Your task to perform on an android device: Search for usb-a to usb-b on bestbuy.com, select the first entry, and add it to the cart. Image 0: 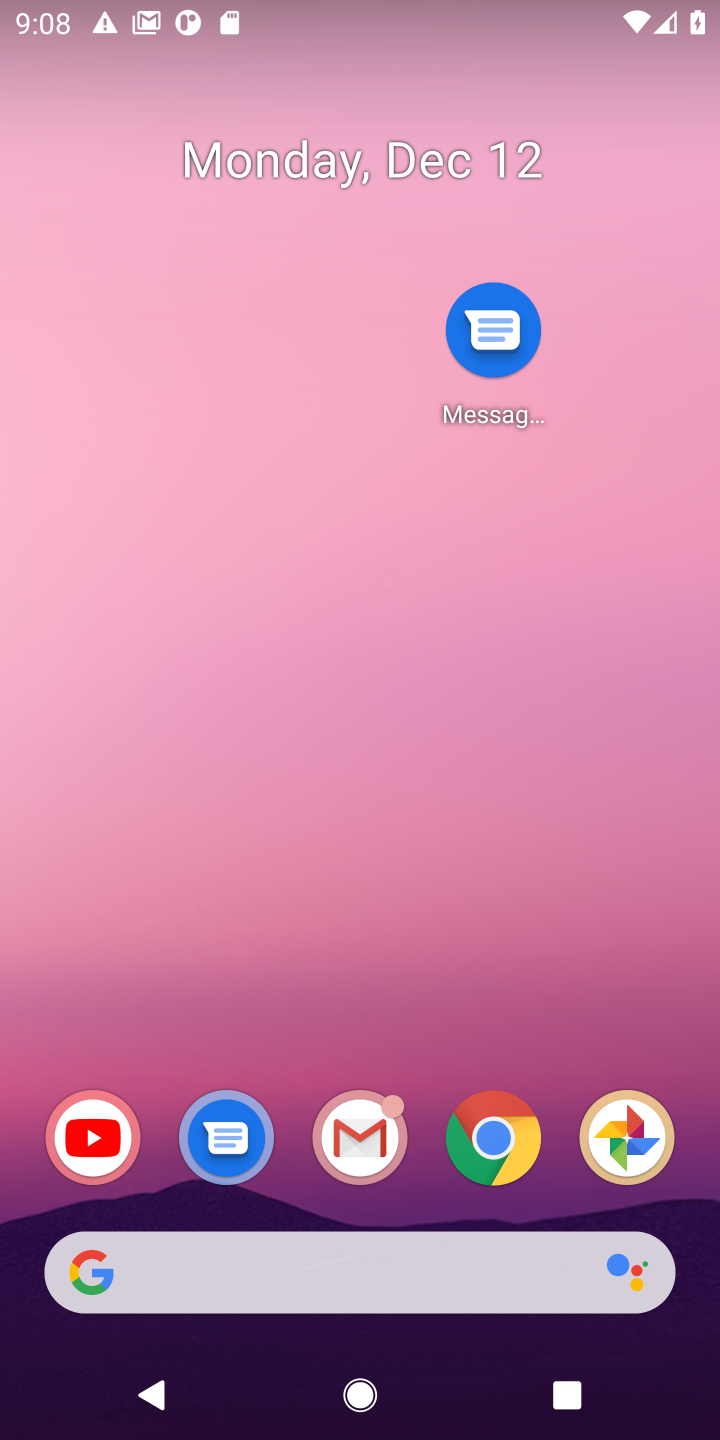
Step 0: drag from (442, 1072) to (422, 446)
Your task to perform on an android device: Search for usb-a to usb-b on bestbuy.com, select the first entry, and add it to the cart. Image 1: 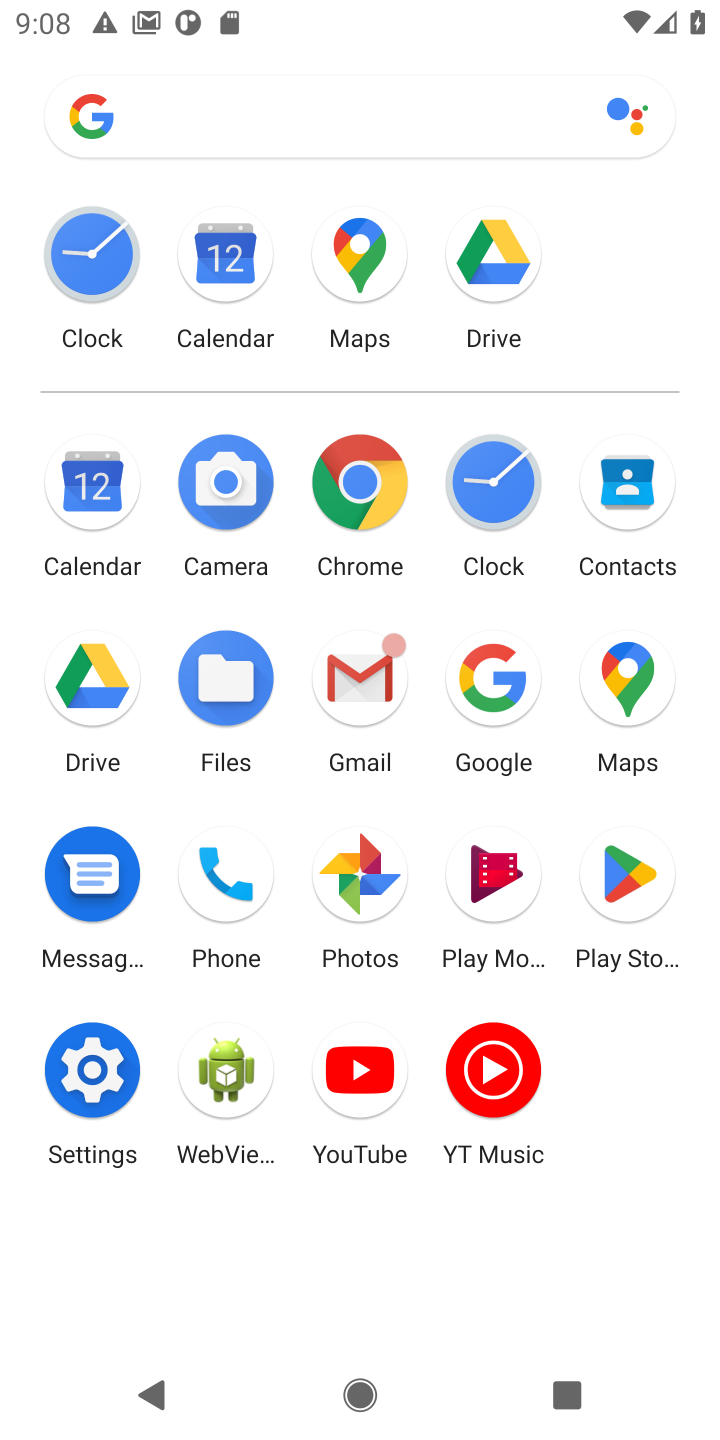
Step 1: click (480, 679)
Your task to perform on an android device: Search for usb-a to usb-b on bestbuy.com, select the first entry, and add it to the cart. Image 2: 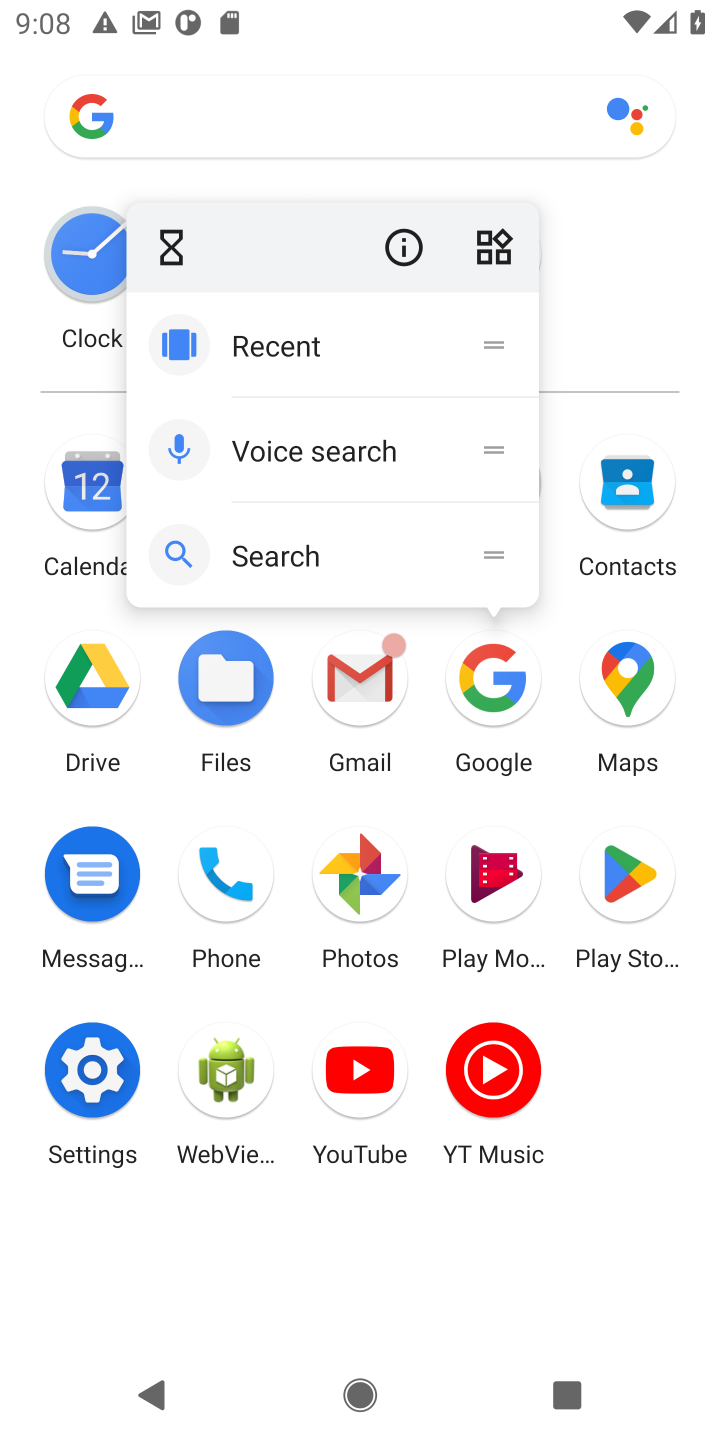
Step 2: click (493, 688)
Your task to perform on an android device: Search for usb-a to usb-b on bestbuy.com, select the first entry, and add it to the cart. Image 3: 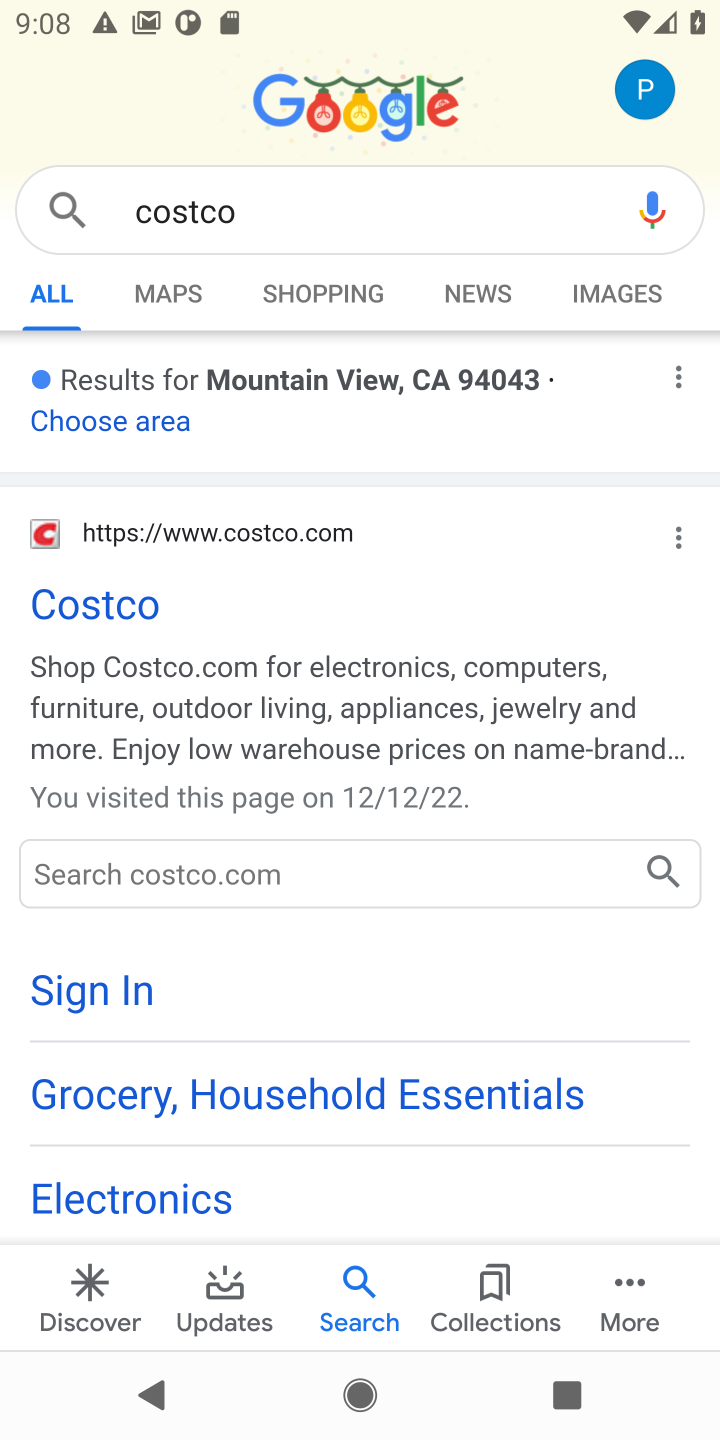
Step 3: click (171, 215)
Your task to perform on an android device: Search for usb-a to usb-b on bestbuy.com, select the first entry, and add it to the cart. Image 4: 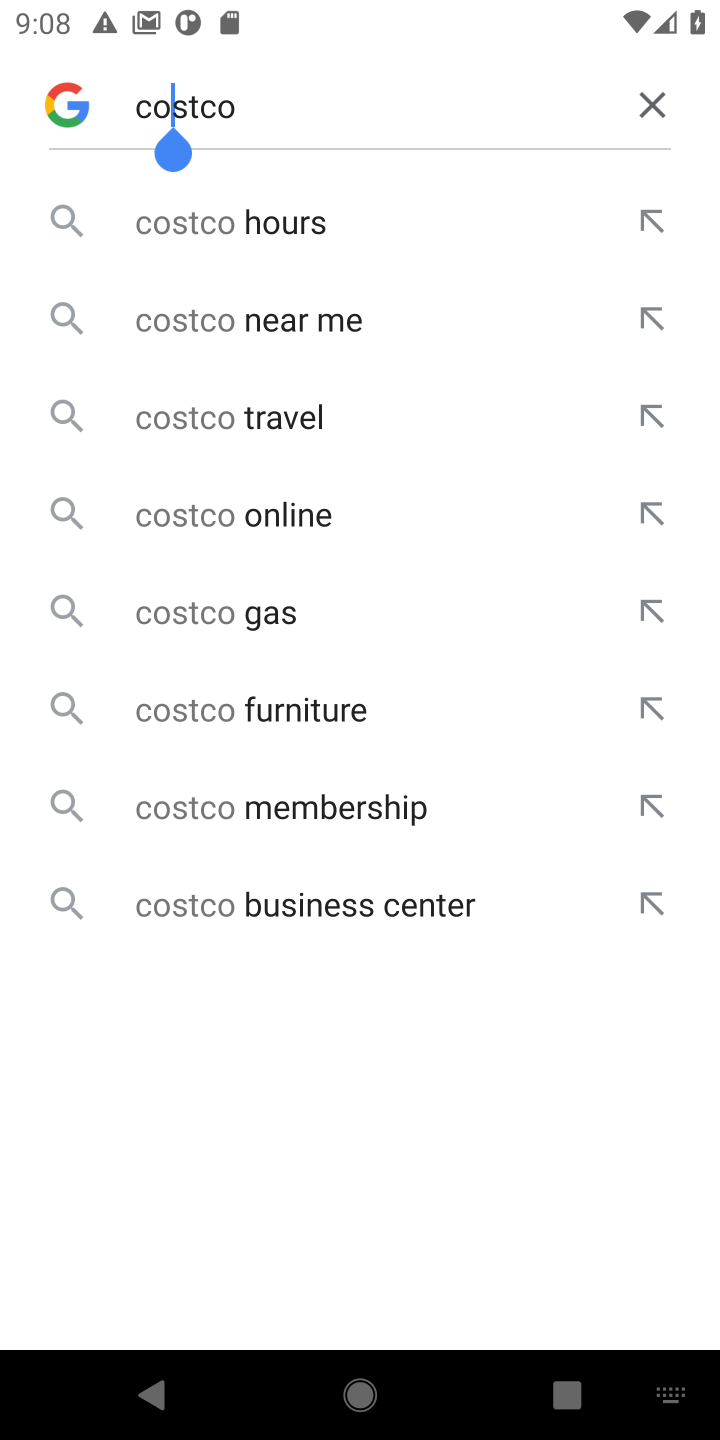
Step 4: click (639, 116)
Your task to perform on an android device: Search for usb-a to usb-b on bestbuy.com, select the first entry, and add it to the cart. Image 5: 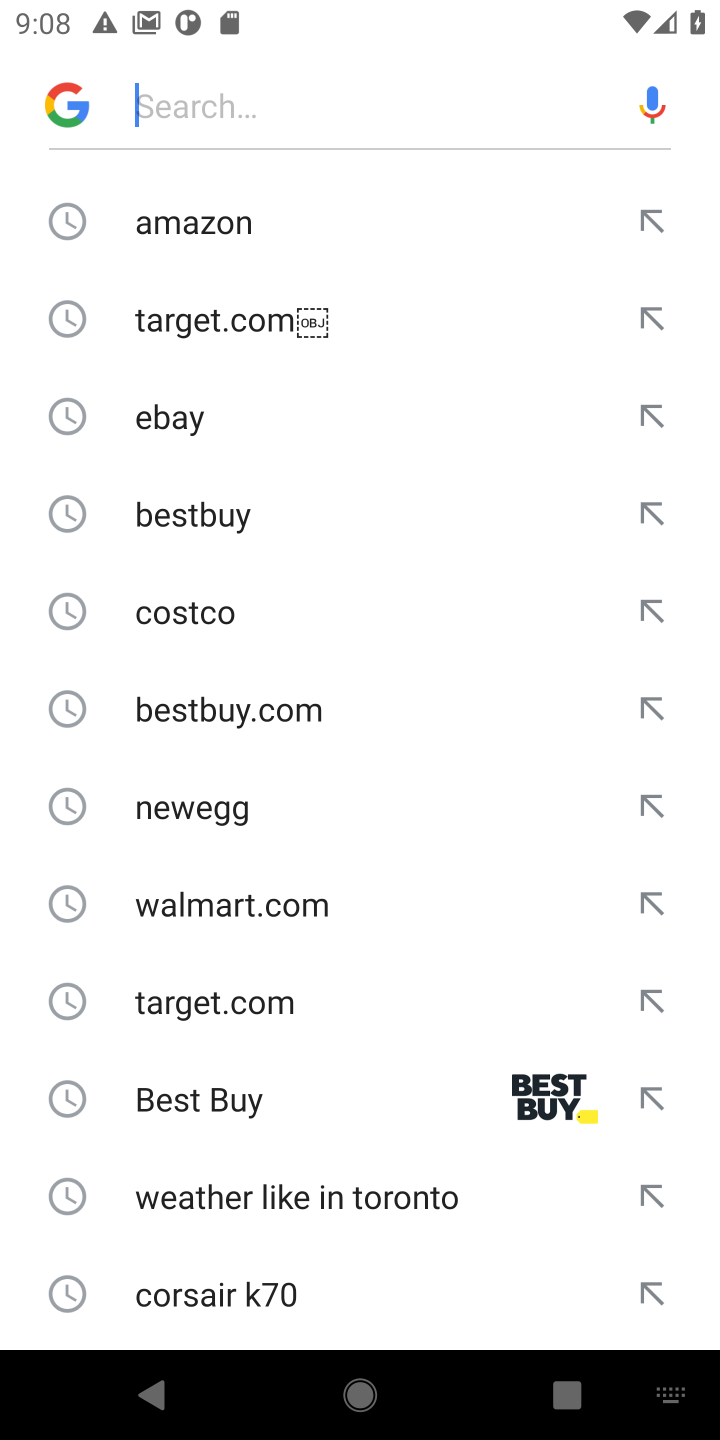
Step 5: click (218, 530)
Your task to perform on an android device: Search for usb-a to usb-b on bestbuy.com, select the first entry, and add it to the cart. Image 6: 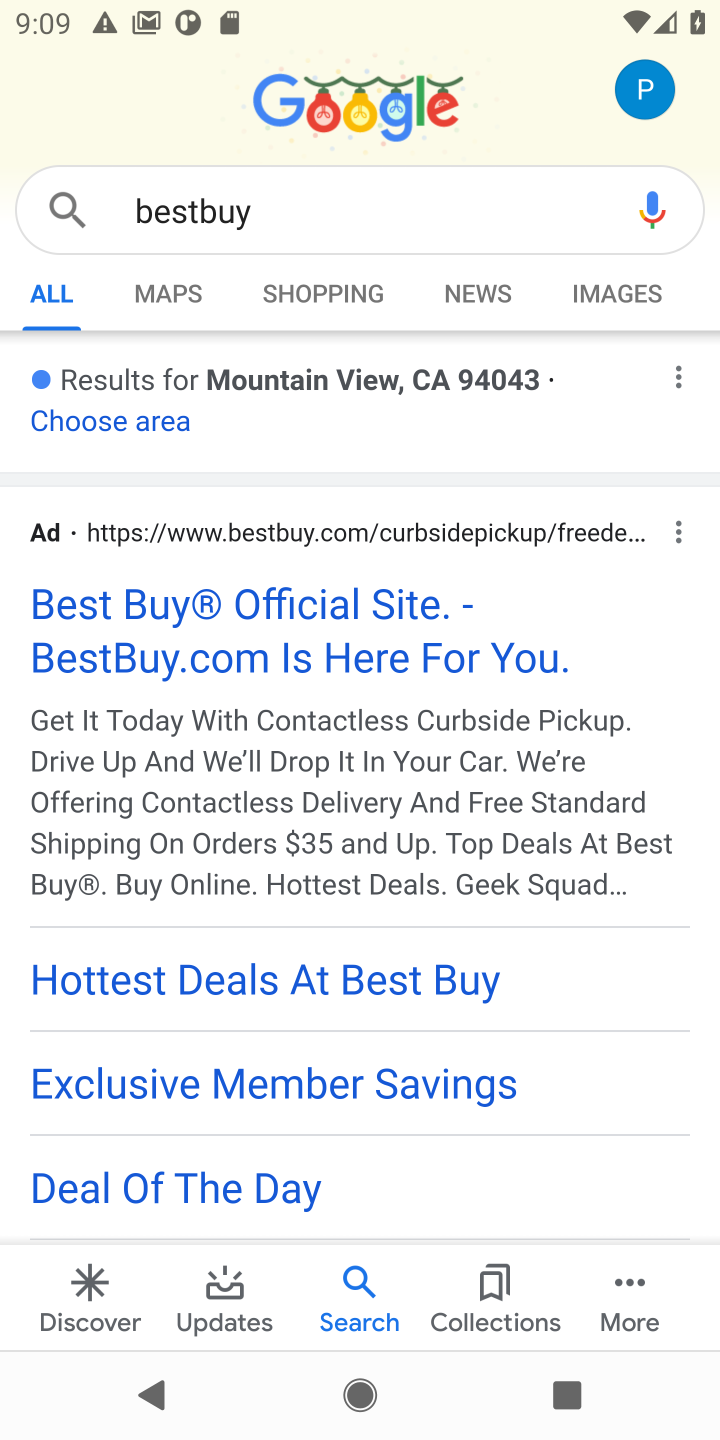
Step 6: click (231, 618)
Your task to perform on an android device: Search for usb-a to usb-b on bestbuy.com, select the first entry, and add it to the cart. Image 7: 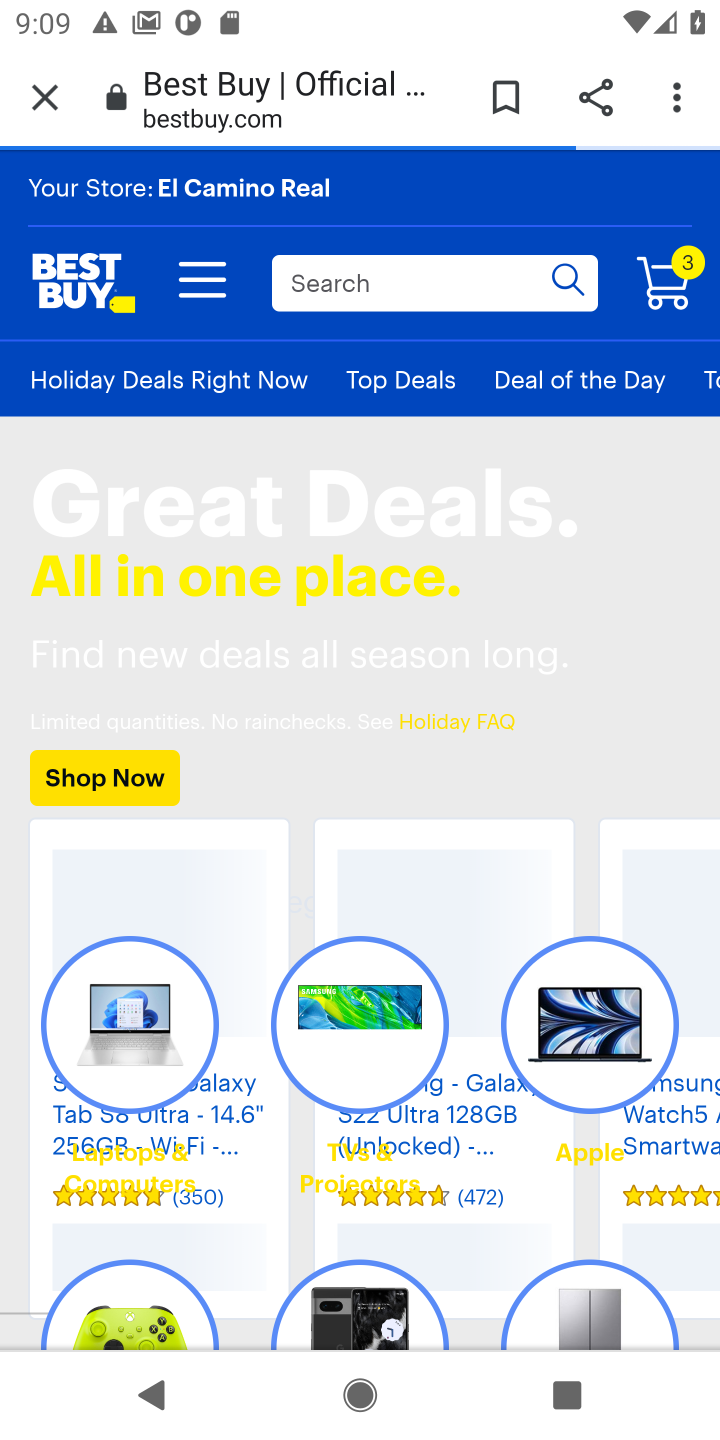
Step 7: click (338, 291)
Your task to perform on an android device: Search for usb-a to usb-b on bestbuy.com, select the first entry, and add it to the cart. Image 8: 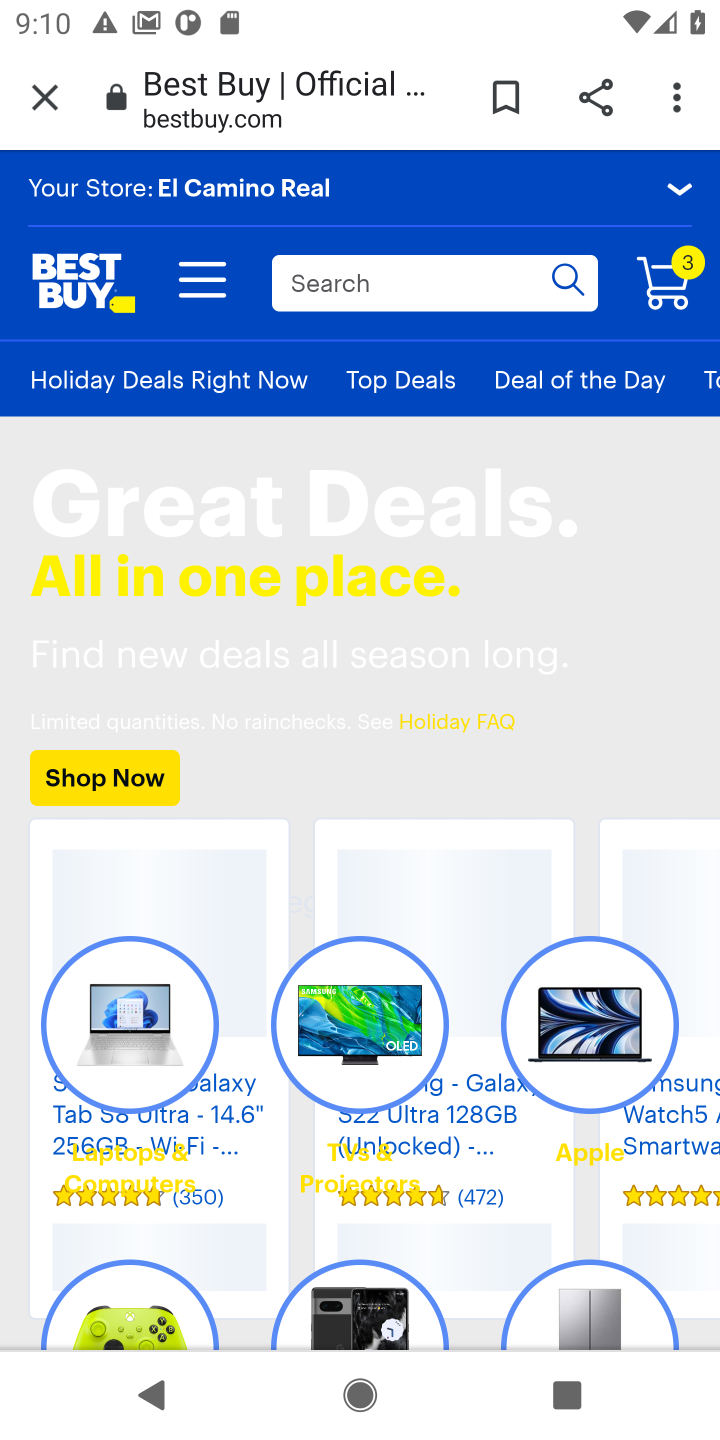
Step 8: click (302, 281)
Your task to perform on an android device: Search for usb-a to usb-b on bestbuy.com, select the first entry, and add it to the cart. Image 9: 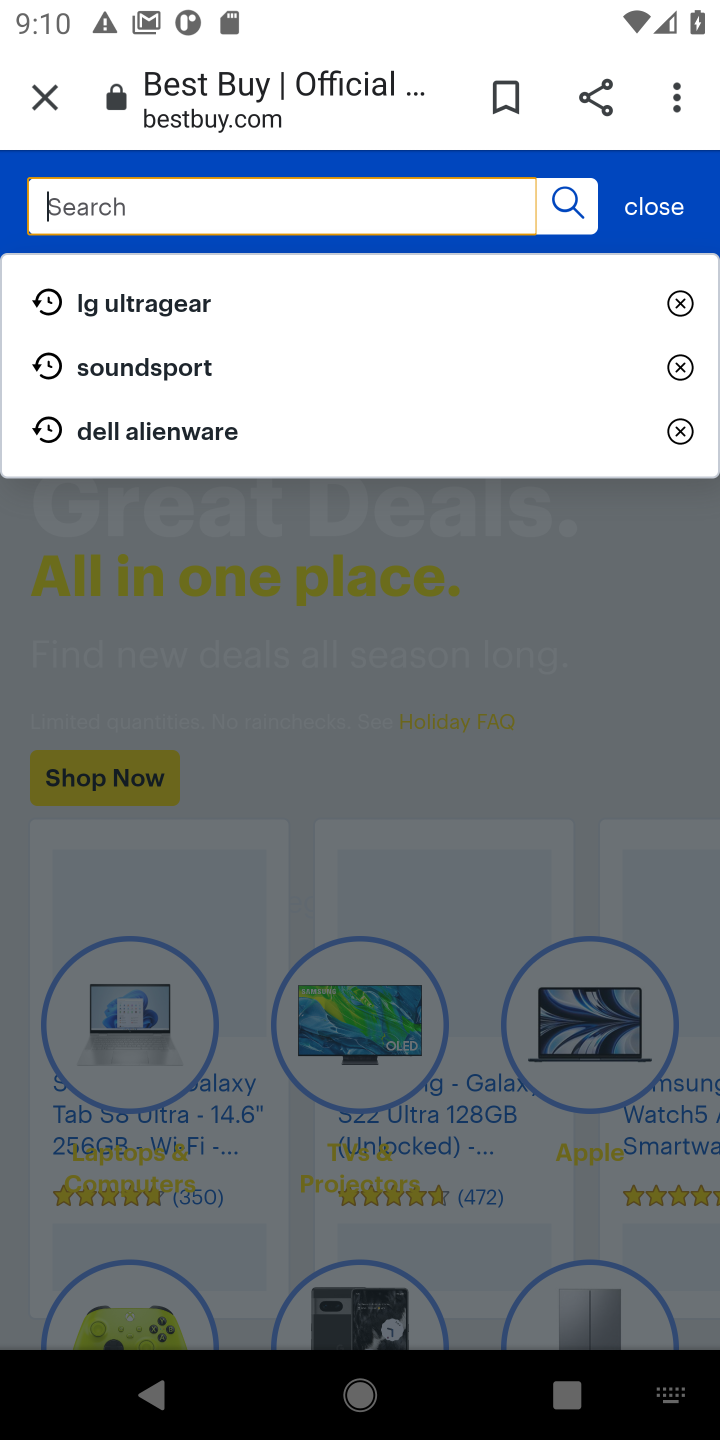
Step 9: type "usb-a to usb-b"
Your task to perform on an android device: Search for usb-a to usb-b on bestbuy.com, select the first entry, and add it to the cart. Image 10: 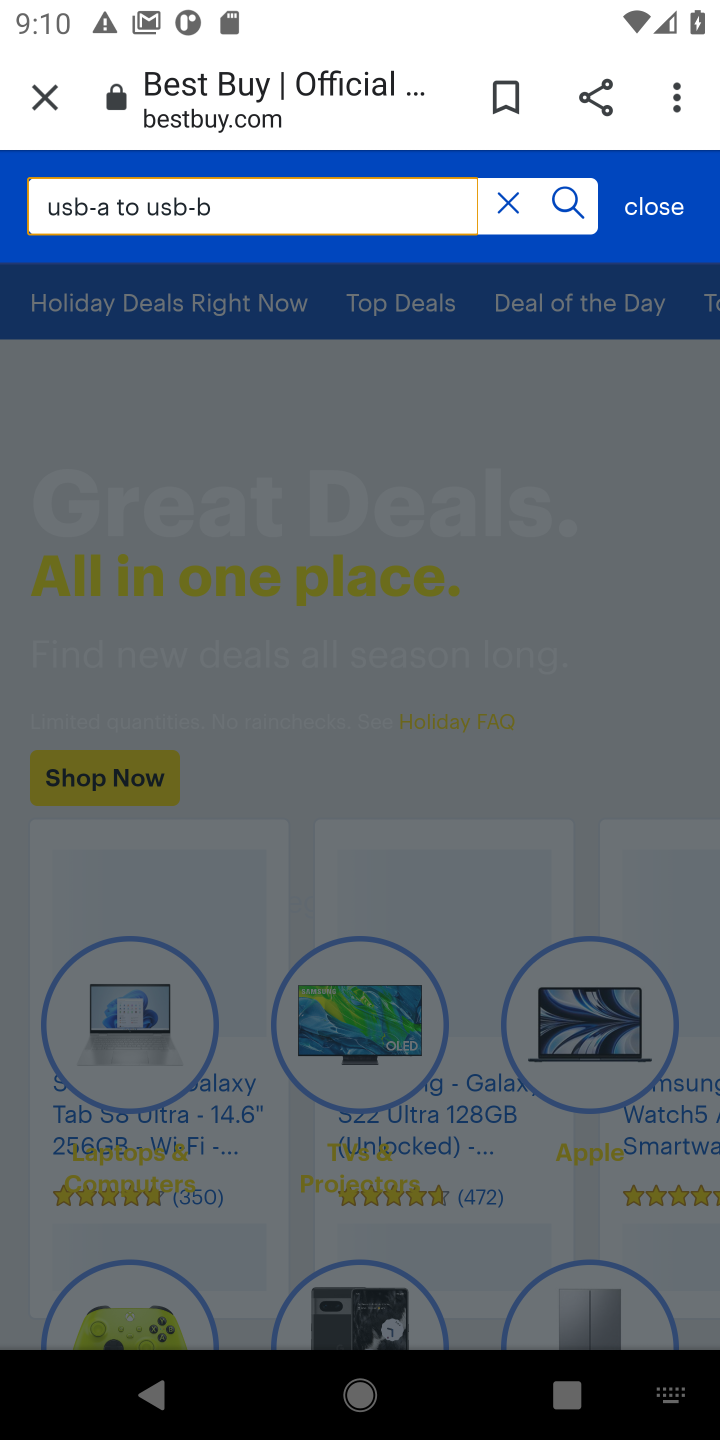
Step 10: click (572, 209)
Your task to perform on an android device: Search for usb-a to usb-b on bestbuy.com, select the first entry, and add it to the cart. Image 11: 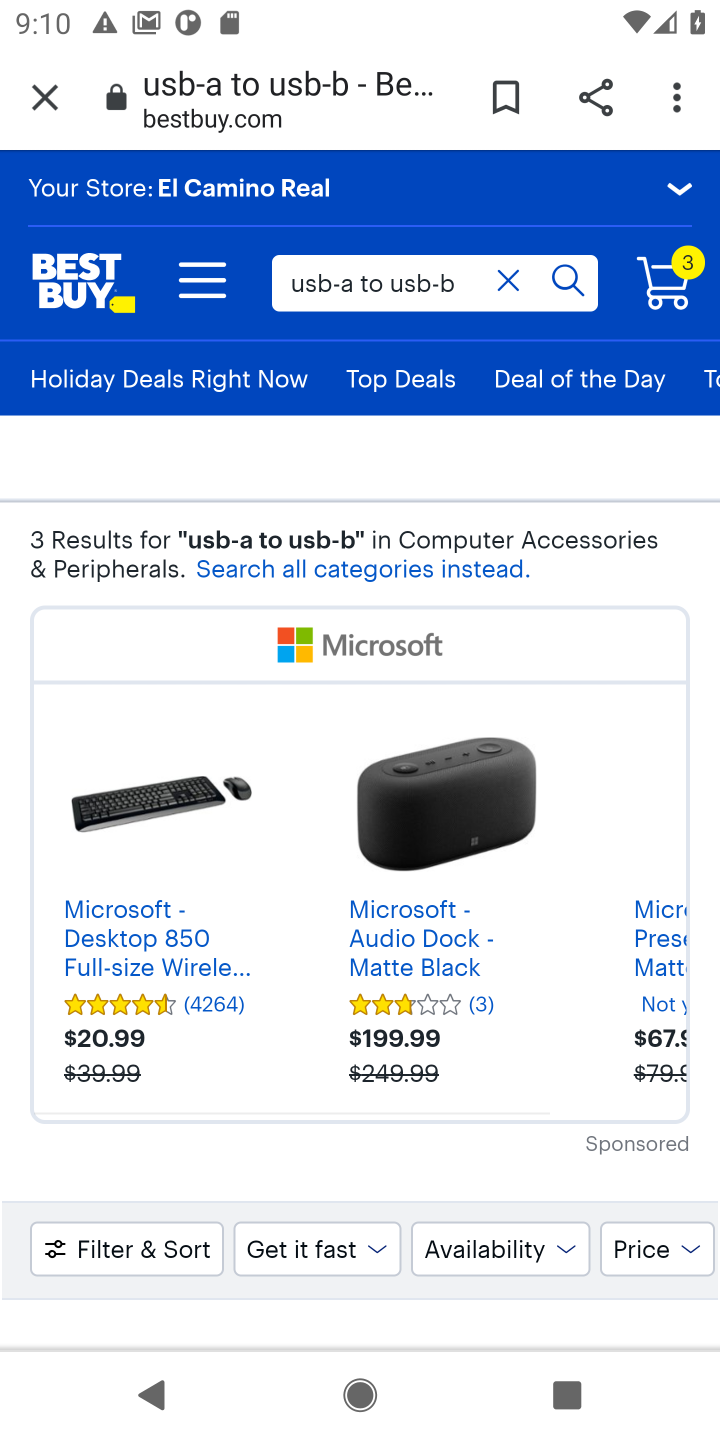
Step 11: drag from (282, 1161) to (220, 374)
Your task to perform on an android device: Search for usb-a to usb-b on bestbuy.com, select the first entry, and add it to the cart. Image 12: 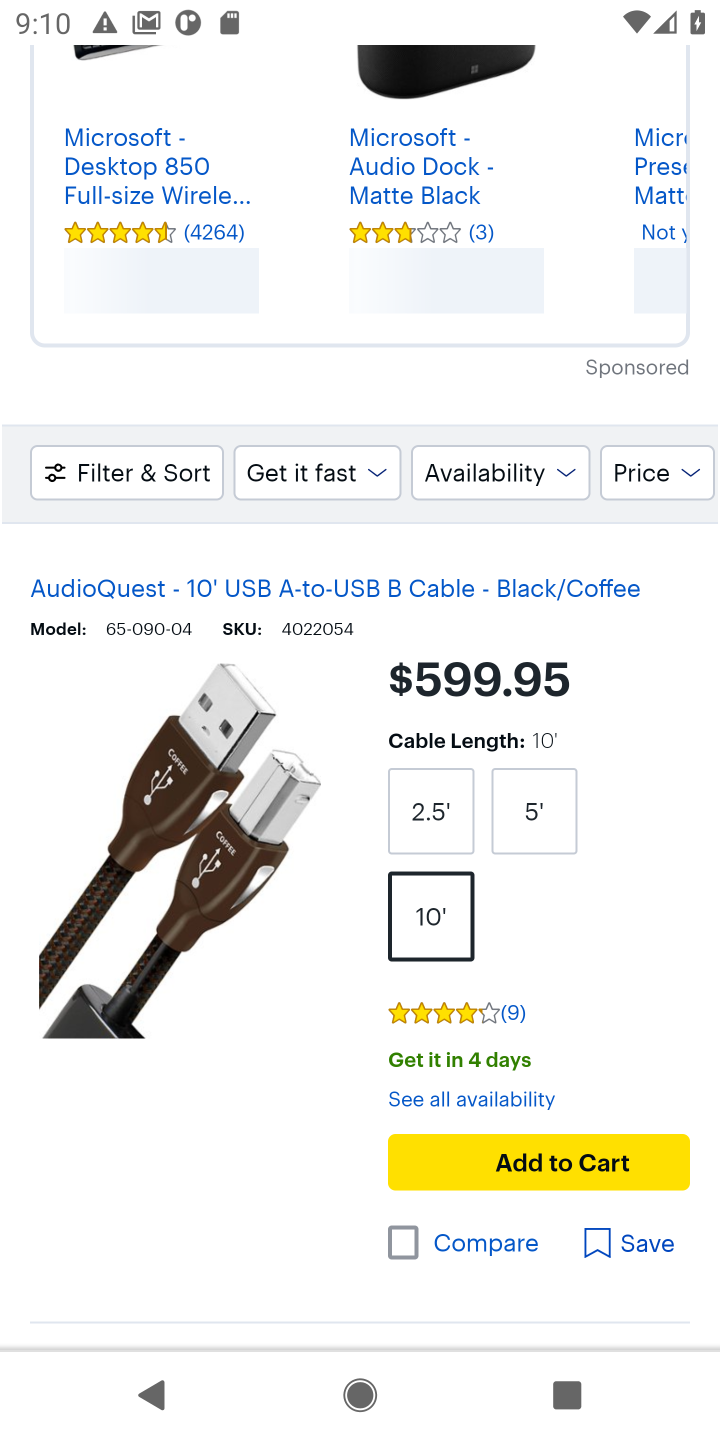
Step 12: drag from (265, 936) to (265, 465)
Your task to perform on an android device: Search for usb-a to usb-b on bestbuy.com, select the first entry, and add it to the cart. Image 13: 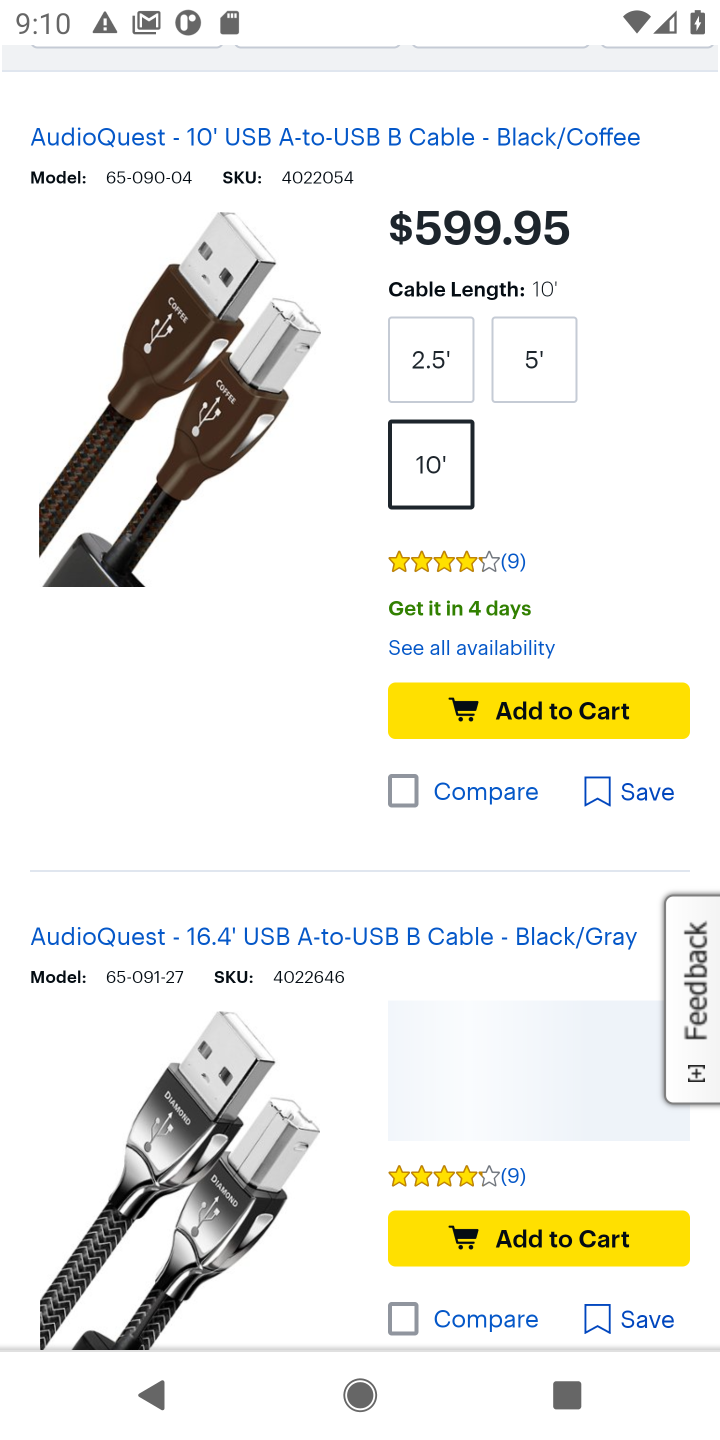
Step 13: click (520, 685)
Your task to perform on an android device: Search for usb-a to usb-b on bestbuy.com, select the first entry, and add it to the cart. Image 14: 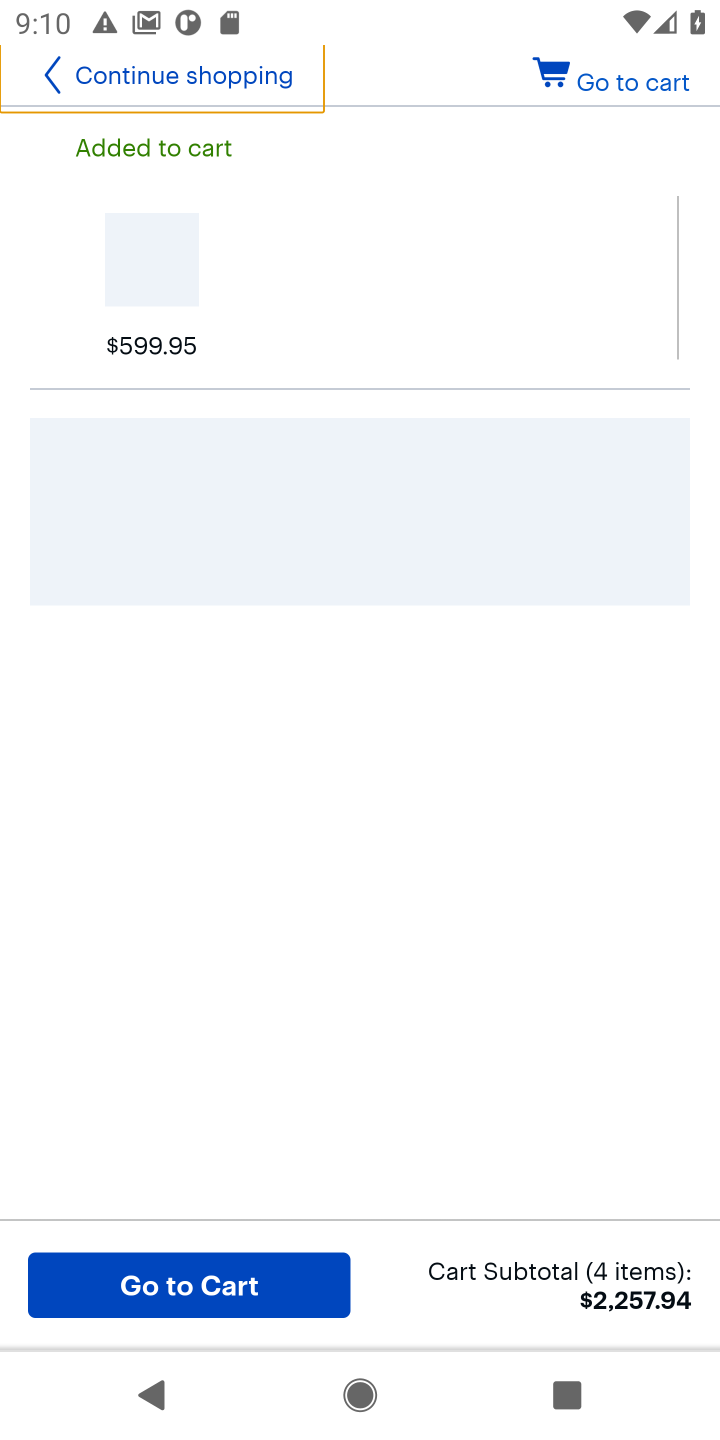
Step 14: click (246, 1282)
Your task to perform on an android device: Search for usb-a to usb-b on bestbuy.com, select the first entry, and add it to the cart. Image 15: 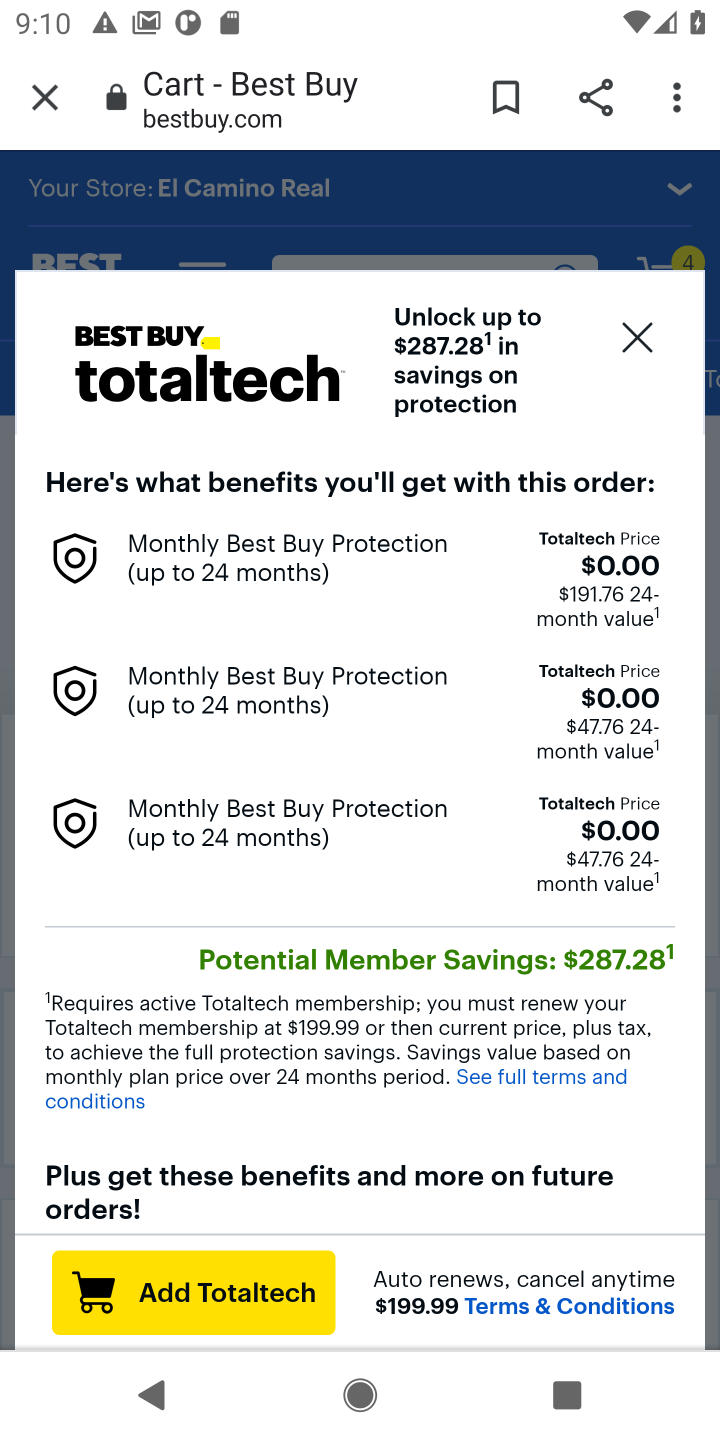
Step 15: click (632, 345)
Your task to perform on an android device: Search for usb-a to usb-b on bestbuy.com, select the first entry, and add it to the cart. Image 16: 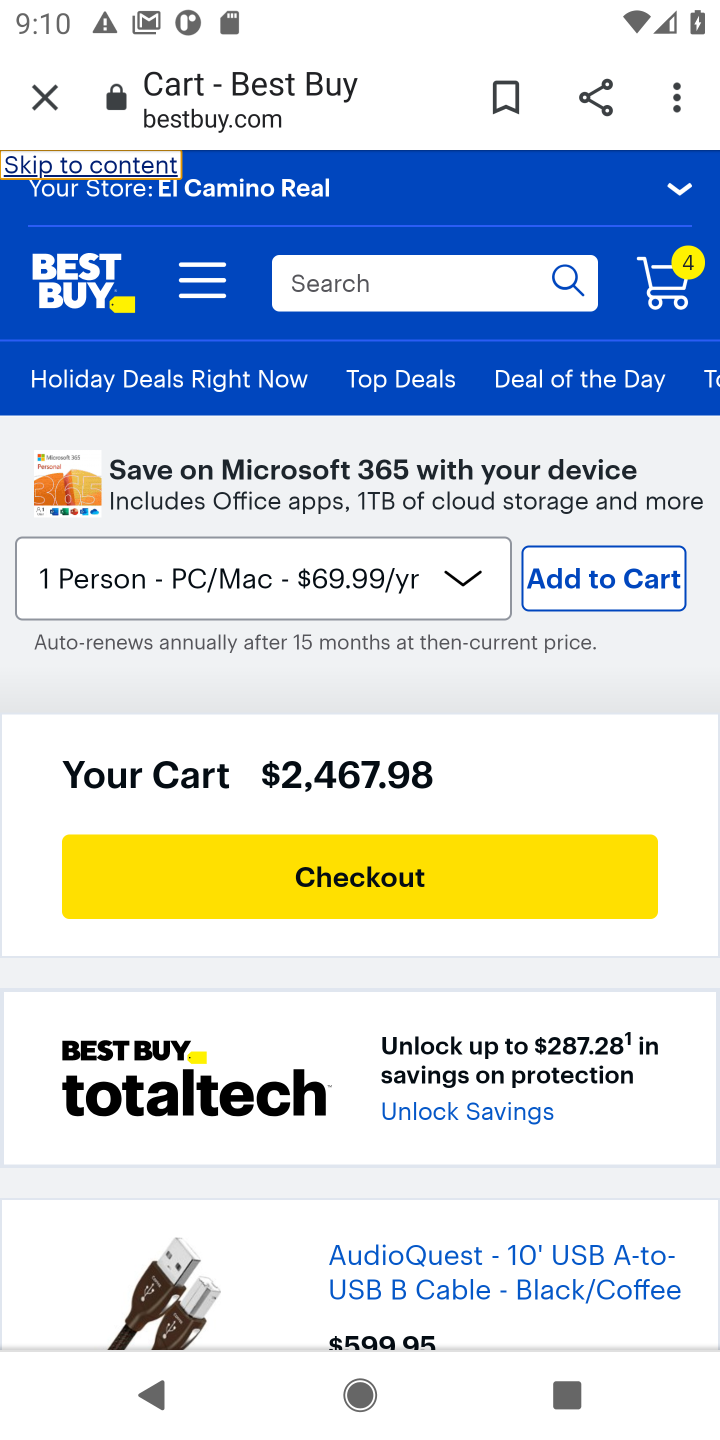
Step 16: click (345, 864)
Your task to perform on an android device: Search for usb-a to usb-b on bestbuy.com, select the first entry, and add it to the cart. Image 17: 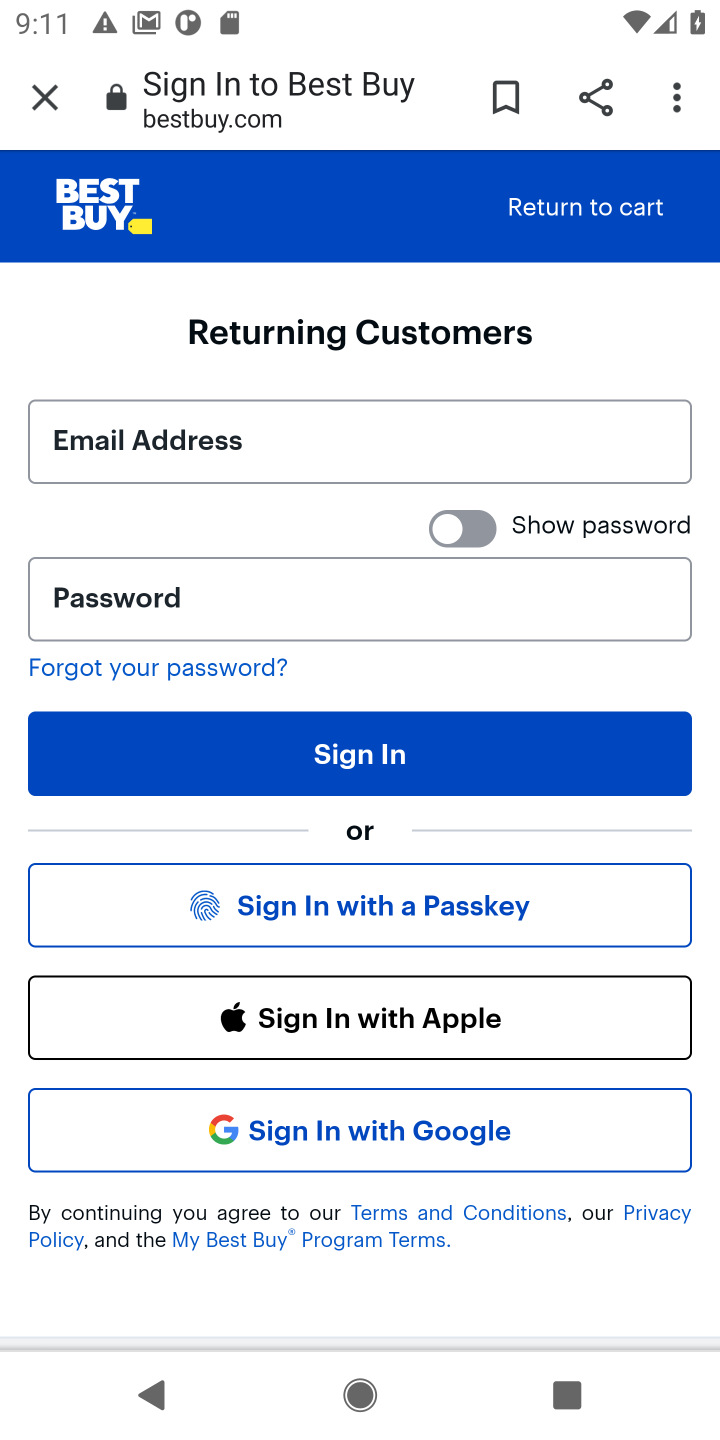
Step 17: task complete